Your task to perform on an android device: turn off sleep mode Image 0: 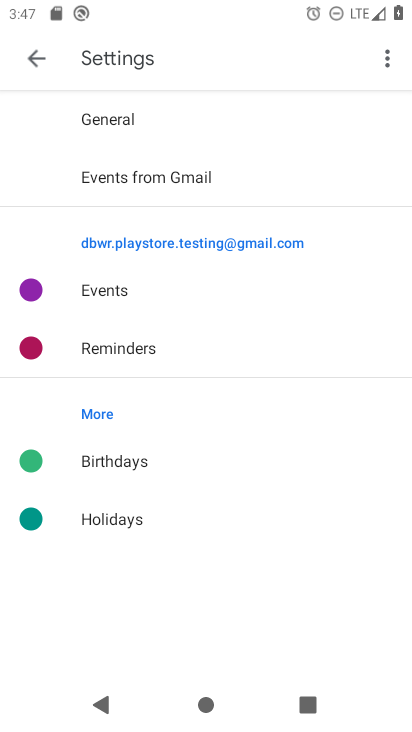
Step 0: press home button
Your task to perform on an android device: turn off sleep mode Image 1: 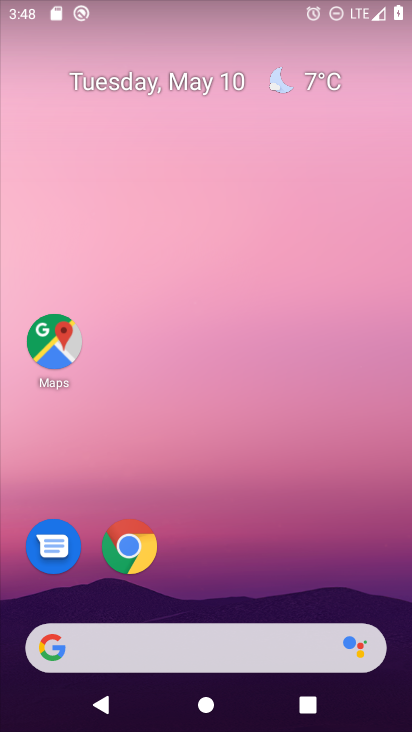
Step 1: drag from (230, 533) to (240, 5)
Your task to perform on an android device: turn off sleep mode Image 2: 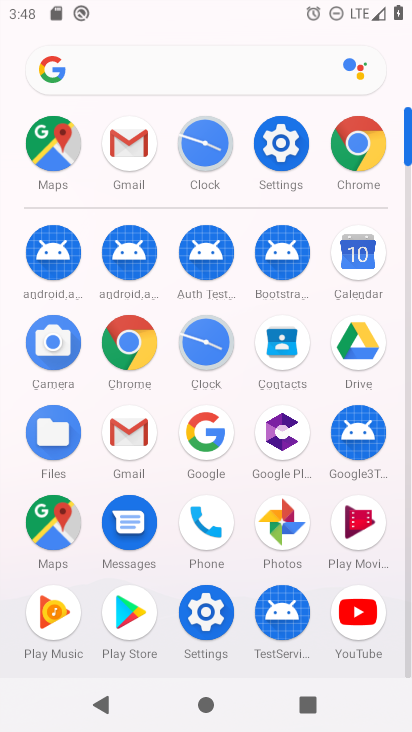
Step 2: click (282, 154)
Your task to perform on an android device: turn off sleep mode Image 3: 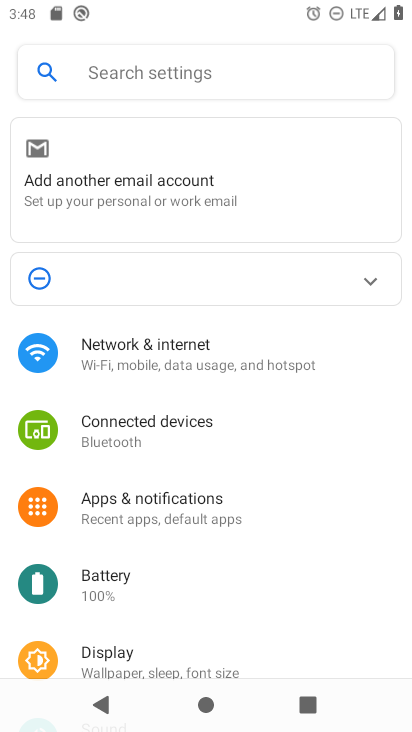
Step 3: click (185, 72)
Your task to perform on an android device: turn off sleep mode Image 4: 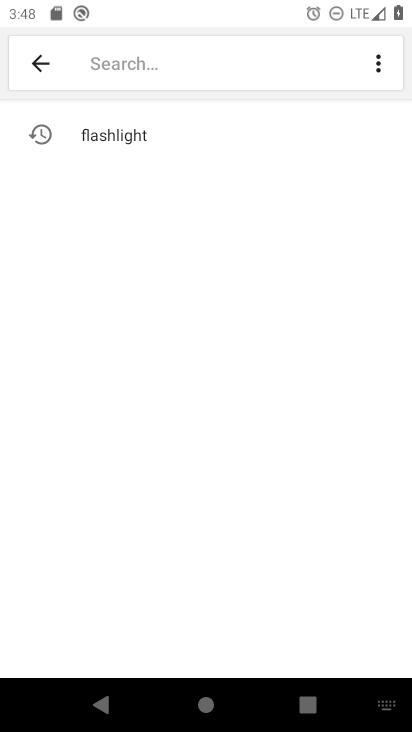
Step 4: type "sleep mode"
Your task to perform on an android device: turn off sleep mode Image 5: 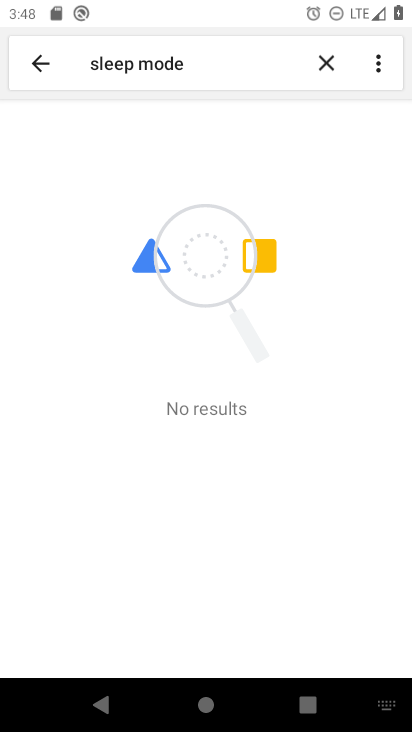
Step 5: task complete